Your task to perform on an android device: move an email to a new category in the gmail app Image 0: 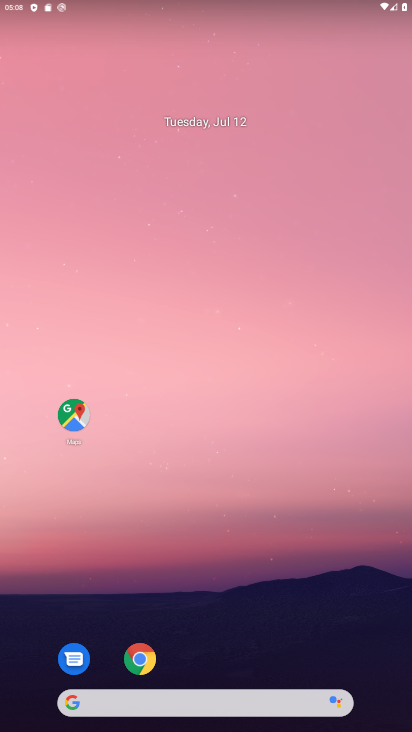
Step 0: drag from (377, 640) to (334, 93)
Your task to perform on an android device: move an email to a new category in the gmail app Image 1: 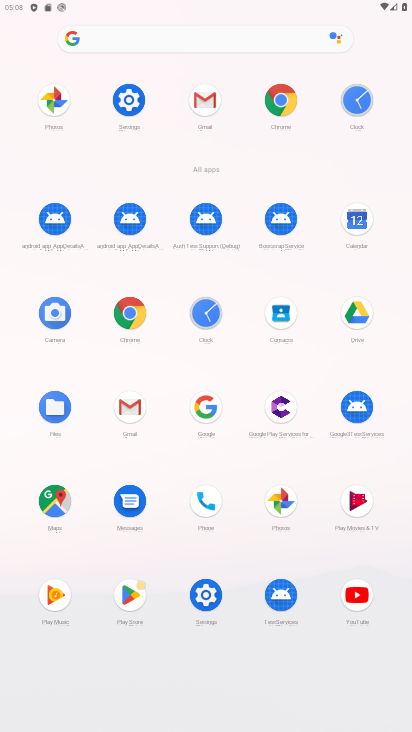
Step 1: click (126, 406)
Your task to perform on an android device: move an email to a new category in the gmail app Image 2: 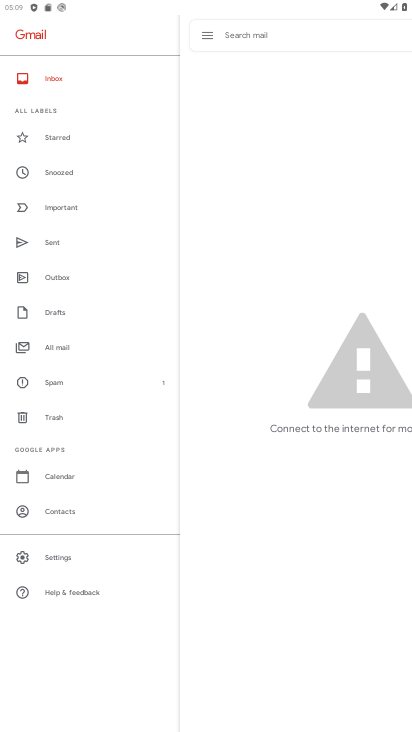
Step 2: click (61, 345)
Your task to perform on an android device: move an email to a new category in the gmail app Image 3: 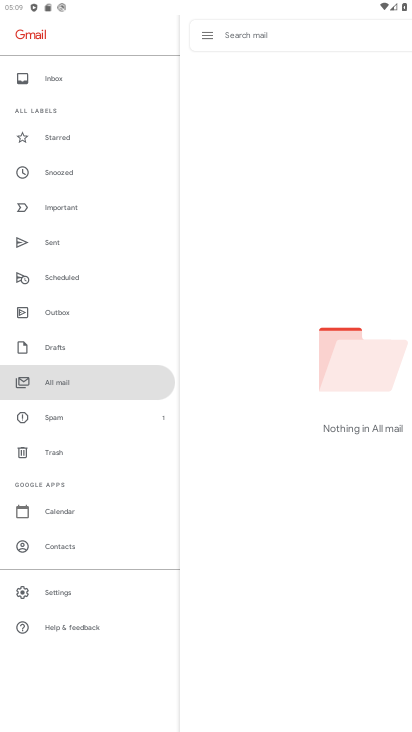
Step 3: task complete